Your task to perform on an android device: move an email to a new category in the gmail app Image 0: 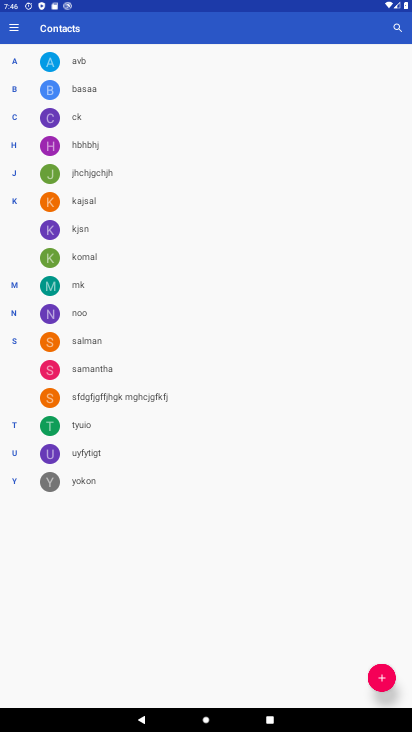
Step 0: press home button
Your task to perform on an android device: move an email to a new category in the gmail app Image 1: 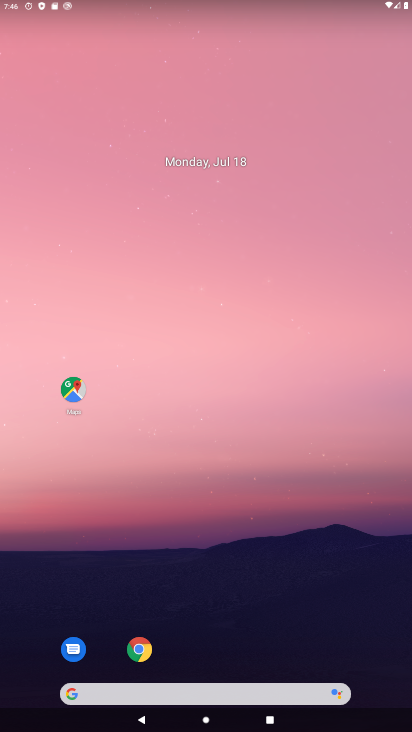
Step 1: drag from (339, 650) to (279, 144)
Your task to perform on an android device: move an email to a new category in the gmail app Image 2: 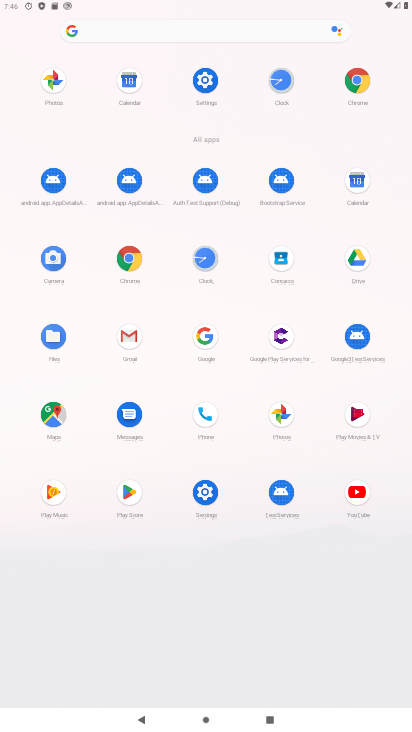
Step 2: click (126, 333)
Your task to perform on an android device: move an email to a new category in the gmail app Image 3: 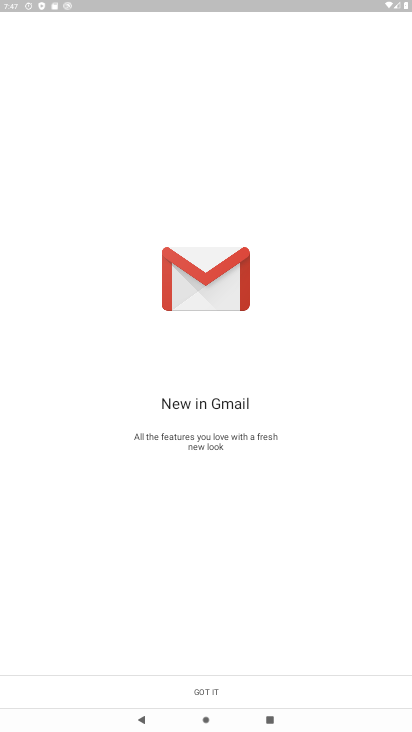
Step 3: click (211, 699)
Your task to perform on an android device: move an email to a new category in the gmail app Image 4: 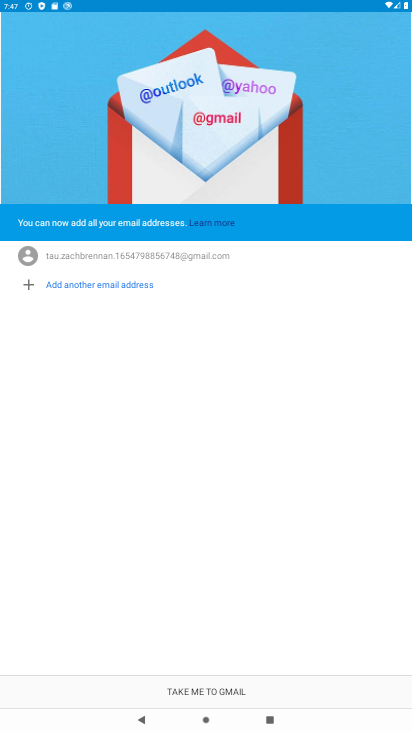
Step 4: click (211, 699)
Your task to perform on an android device: move an email to a new category in the gmail app Image 5: 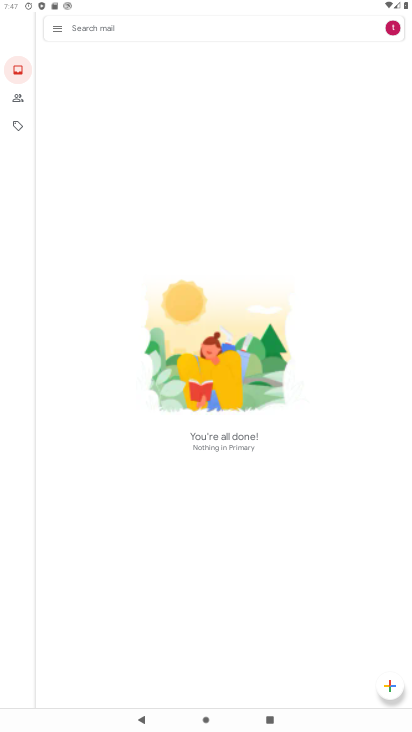
Step 5: click (46, 25)
Your task to perform on an android device: move an email to a new category in the gmail app Image 6: 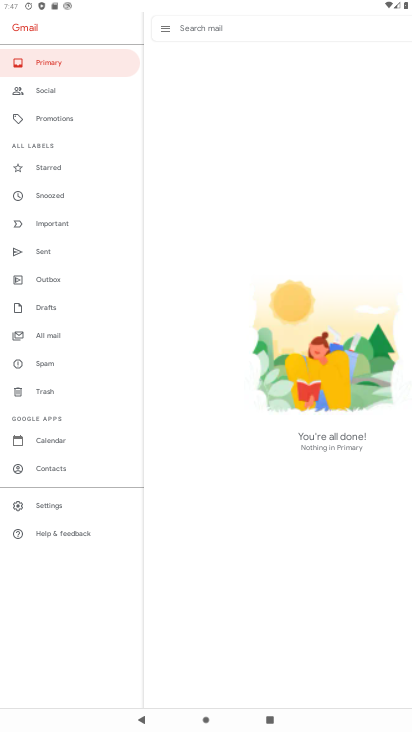
Step 6: click (36, 340)
Your task to perform on an android device: move an email to a new category in the gmail app Image 7: 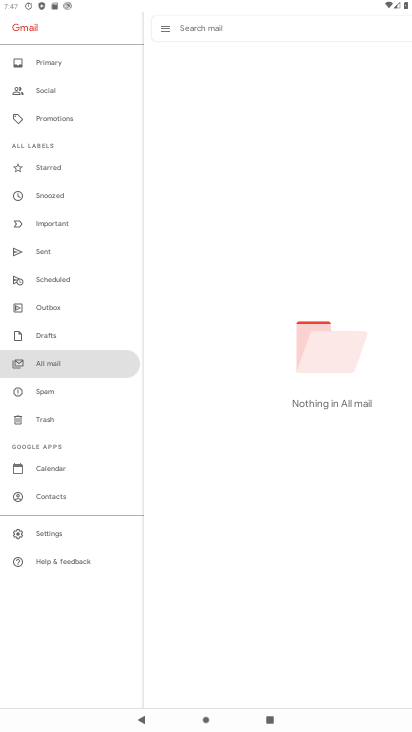
Step 7: task complete